Your task to perform on an android device: Open calendar and show me the third week of next month Image 0: 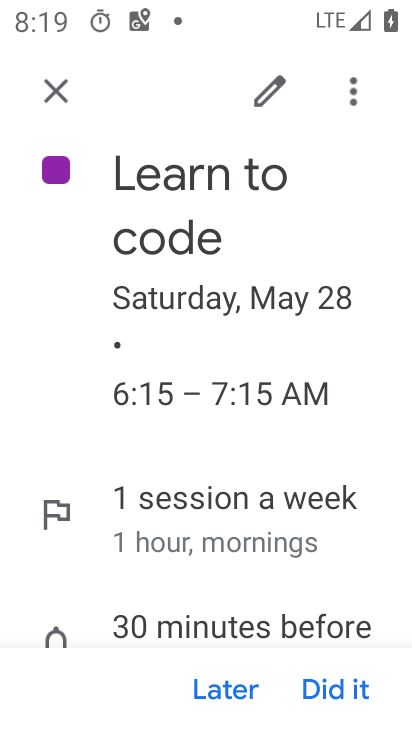
Step 0: press back button
Your task to perform on an android device: Open calendar and show me the third week of next month Image 1: 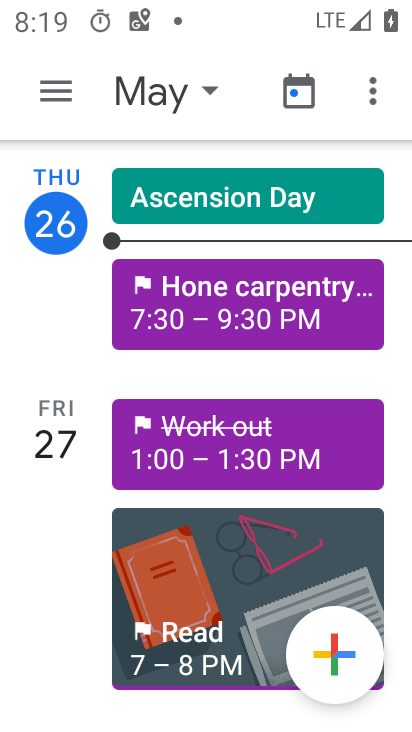
Step 1: press home button
Your task to perform on an android device: Open calendar and show me the third week of next month Image 2: 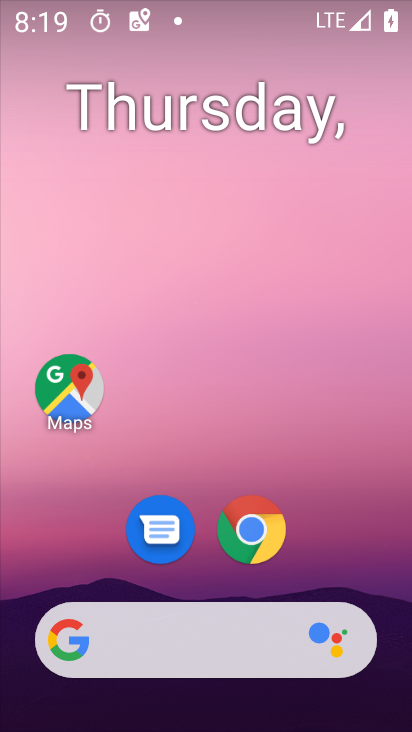
Step 2: drag from (360, 570) to (347, 212)
Your task to perform on an android device: Open calendar and show me the third week of next month Image 3: 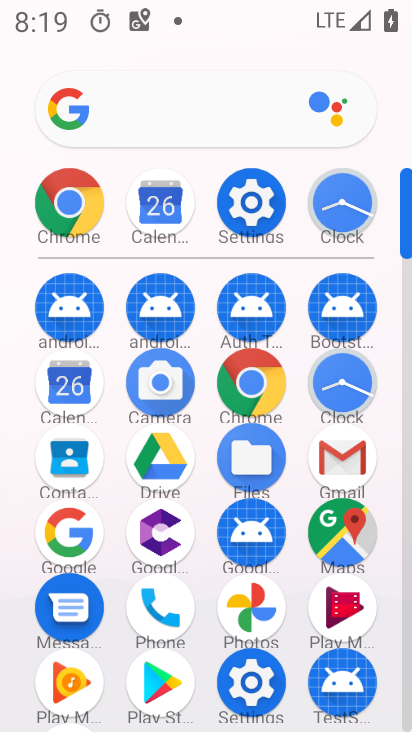
Step 3: click (94, 394)
Your task to perform on an android device: Open calendar and show me the third week of next month Image 4: 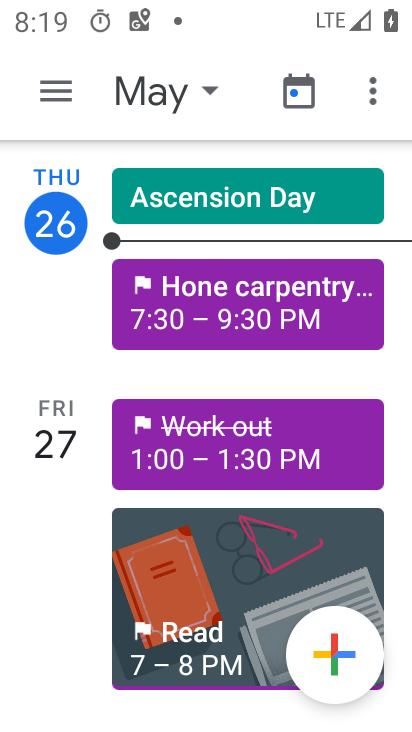
Step 4: click (216, 90)
Your task to perform on an android device: Open calendar and show me the third week of next month Image 5: 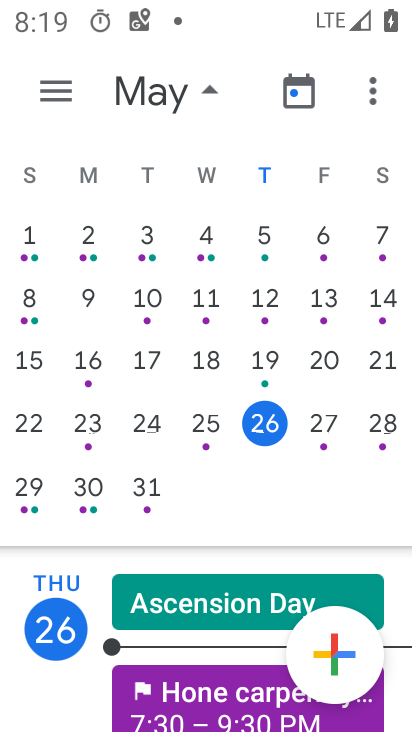
Step 5: drag from (392, 141) to (7, 136)
Your task to perform on an android device: Open calendar and show me the third week of next month Image 6: 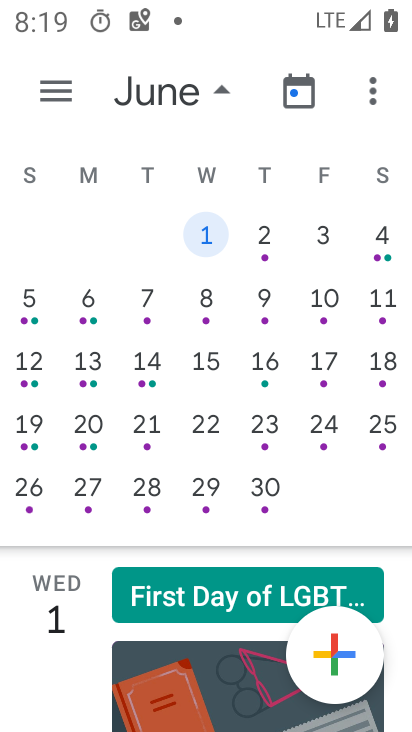
Step 6: click (94, 364)
Your task to perform on an android device: Open calendar and show me the third week of next month Image 7: 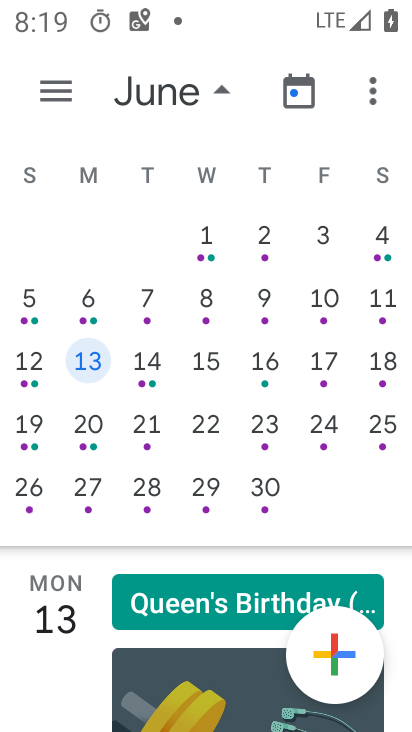
Step 7: task complete